Your task to perform on an android device: Open CNN.com Image 0: 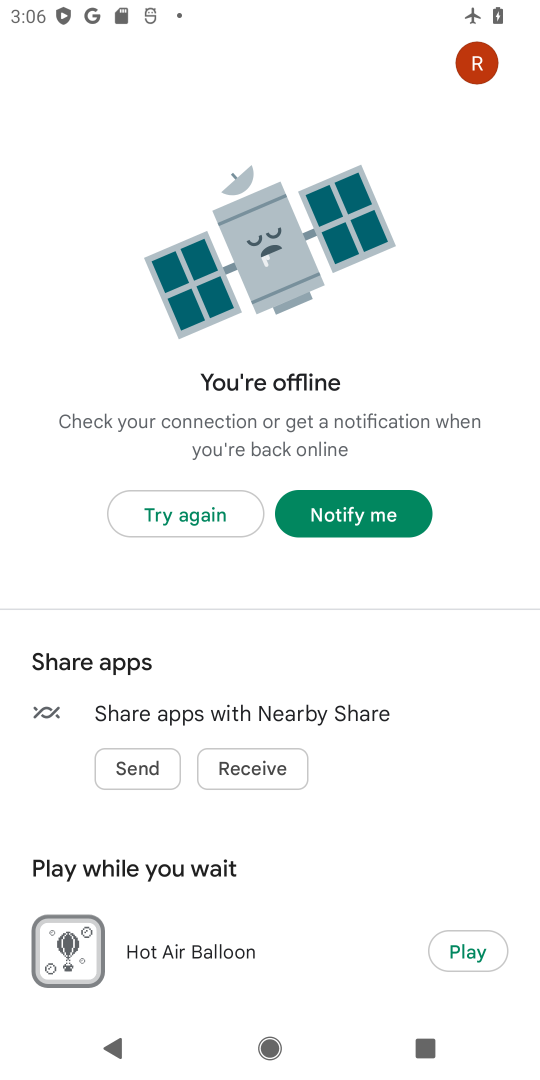
Step 0: press home button
Your task to perform on an android device: Open CNN.com Image 1: 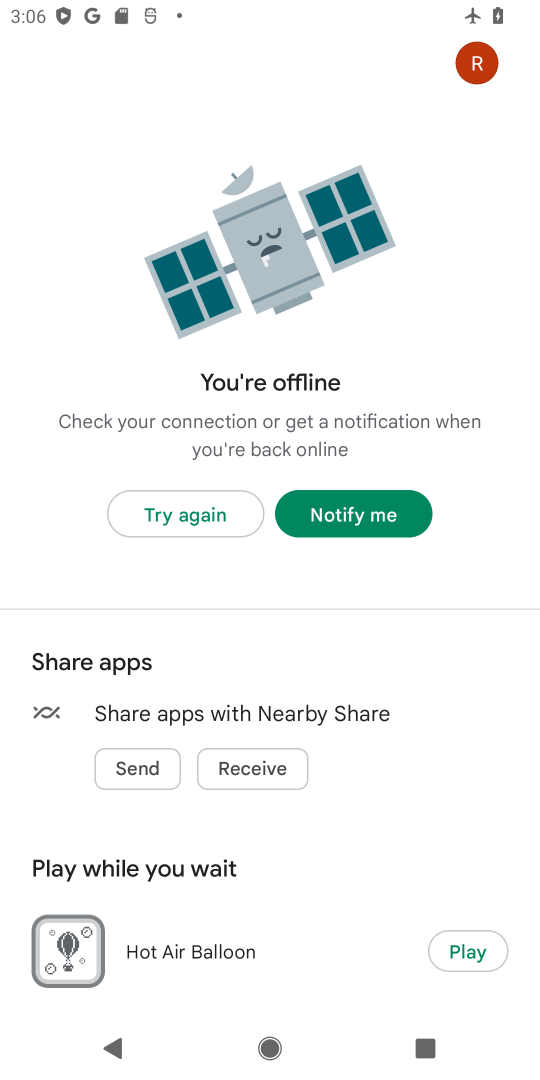
Step 1: press home button
Your task to perform on an android device: Open CNN.com Image 2: 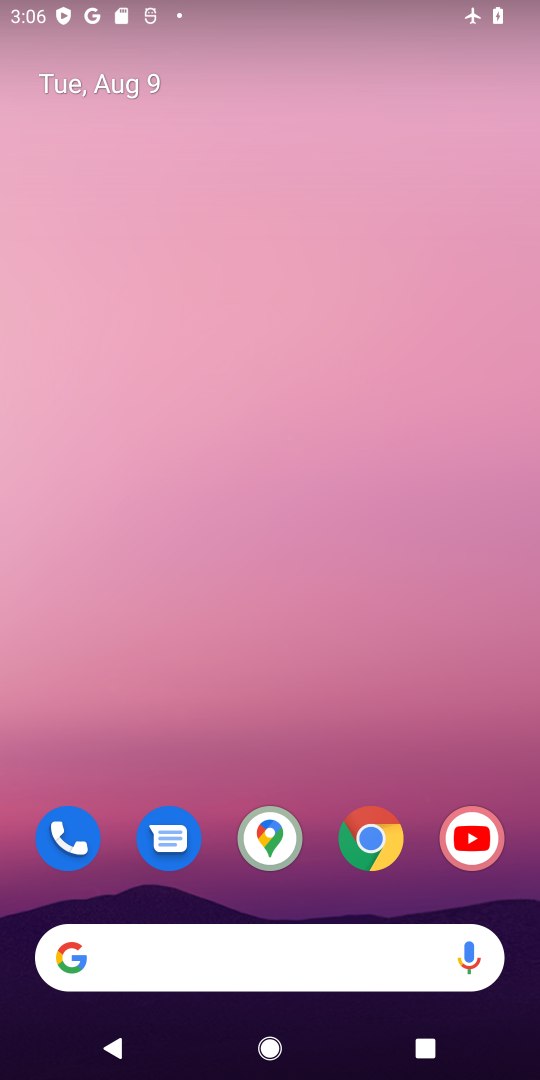
Step 2: drag from (339, 702) to (264, 31)
Your task to perform on an android device: Open CNN.com Image 3: 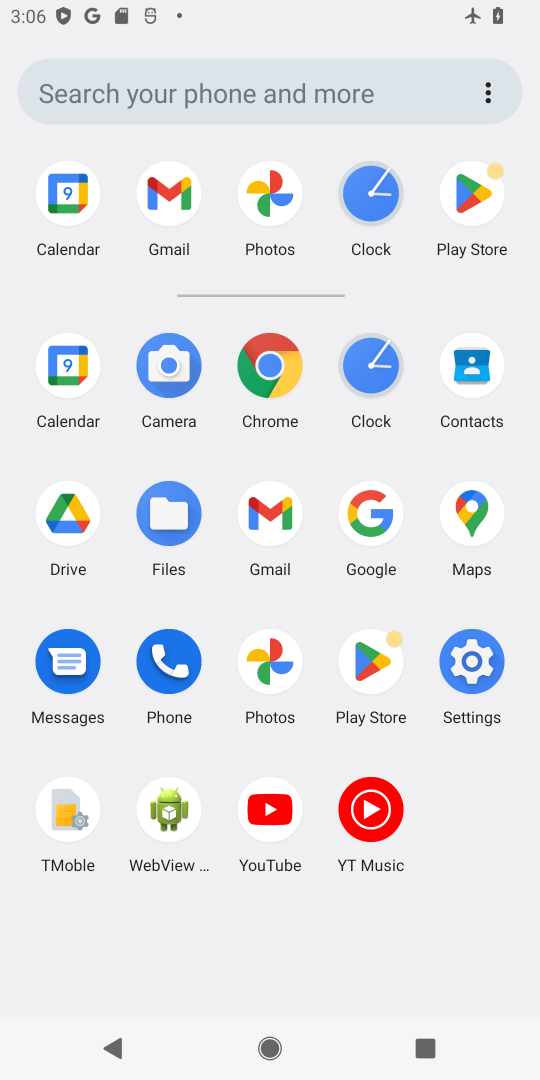
Step 3: click (256, 381)
Your task to perform on an android device: Open CNN.com Image 4: 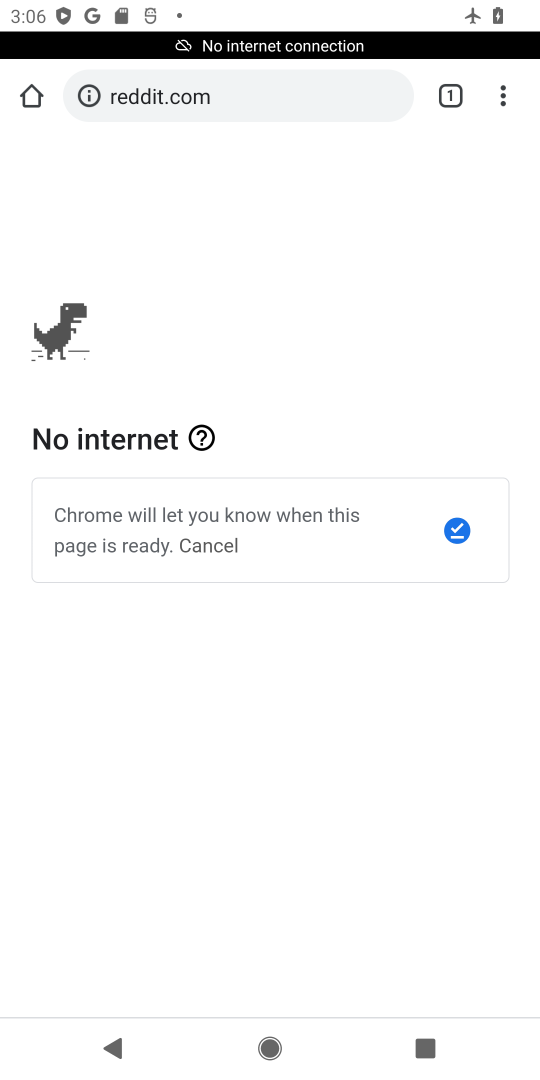
Step 4: click (307, 86)
Your task to perform on an android device: Open CNN.com Image 5: 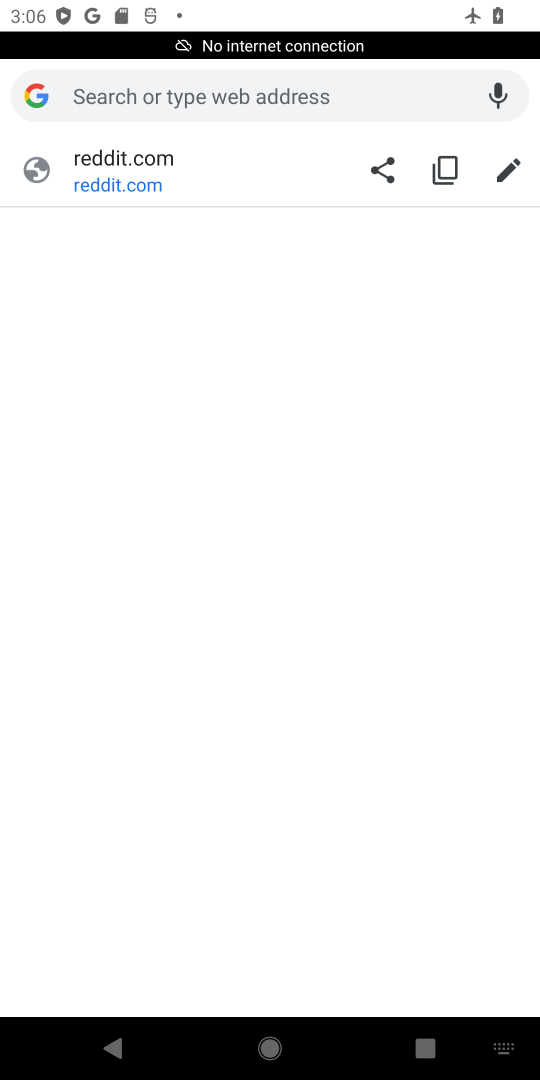
Step 5: type "cnn.com"
Your task to perform on an android device: Open CNN.com Image 6: 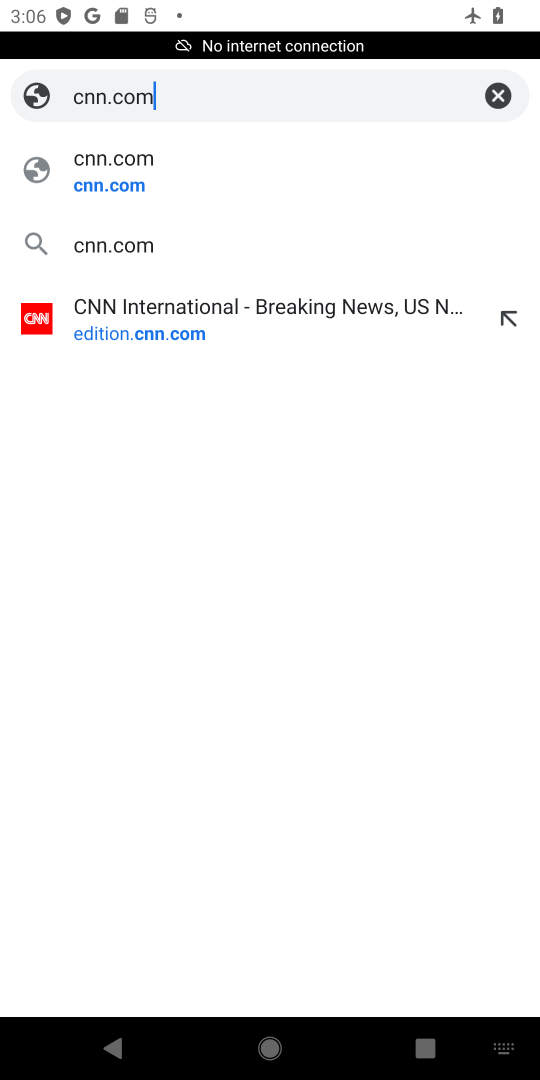
Step 6: click (175, 313)
Your task to perform on an android device: Open CNN.com Image 7: 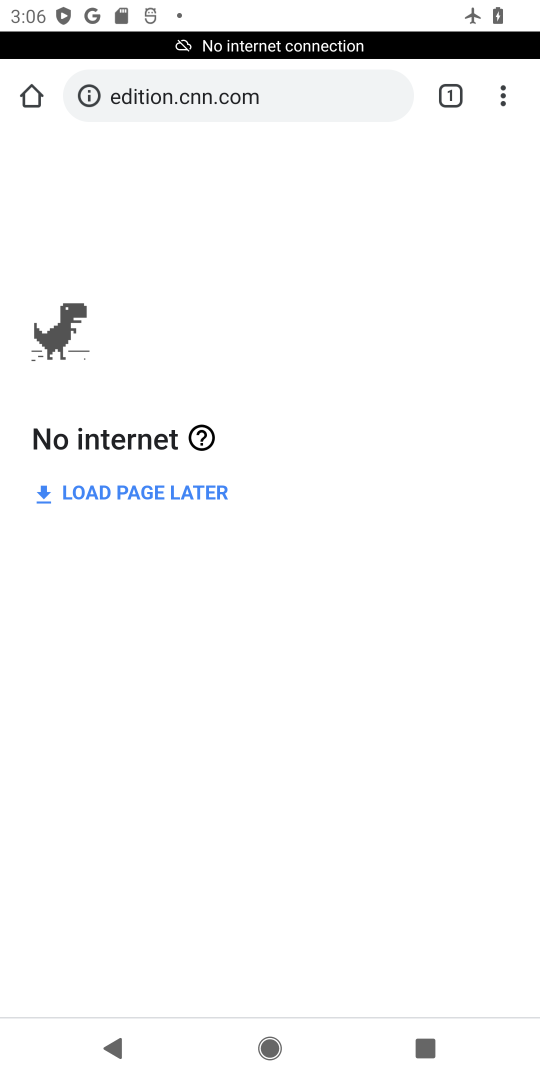
Step 7: task complete